Your task to perform on an android device: show emergency info Image 0: 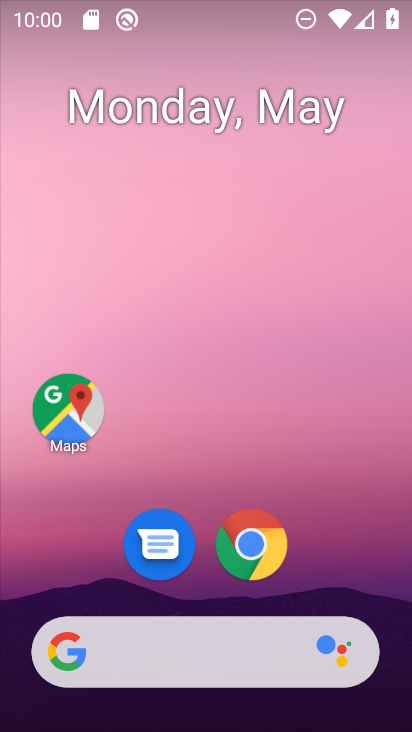
Step 0: drag from (315, 561) to (265, 264)
Your task to perform on an android device: show emergency info Image 1: 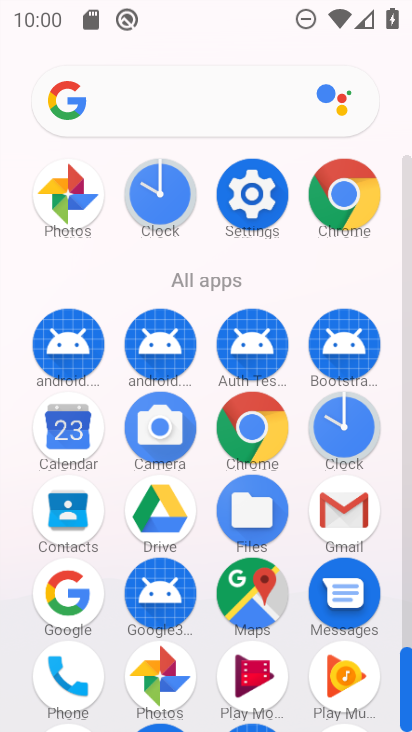
Step 1: click (258, 183)
Your task to perform on an android device: show emergency info Image 2: 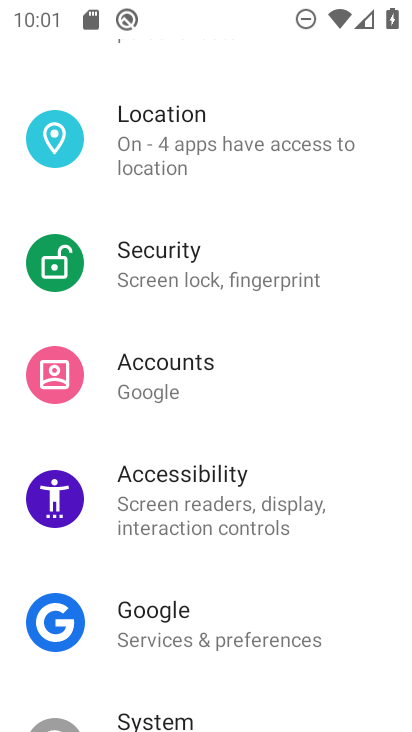
Step 2: drag from (188, 686) to (190, 425)
Your task to perform on an android device: show emergency info Image 3: 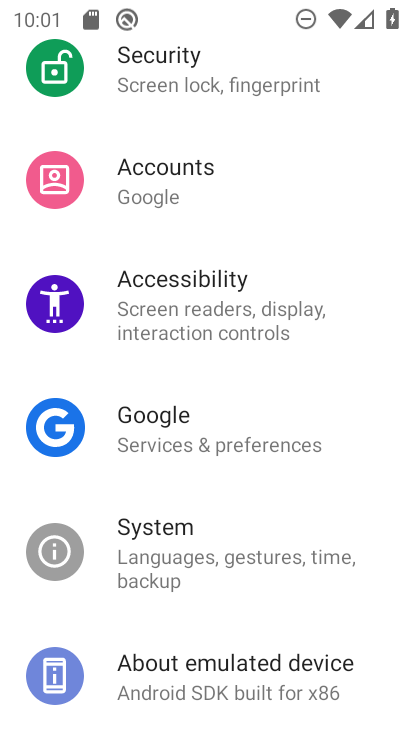
Step 3: click (161, 681)
Your task to perform on an android device: show emergency info Image 4: 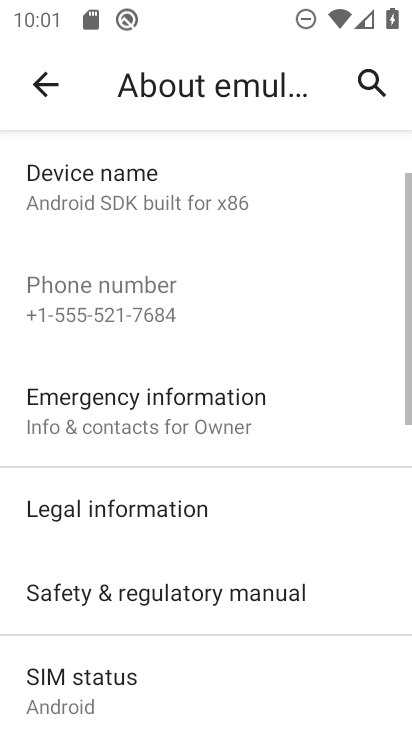
Step 4: click (180, 421)
Your task to perform on an android device: show emergency info Image 5: 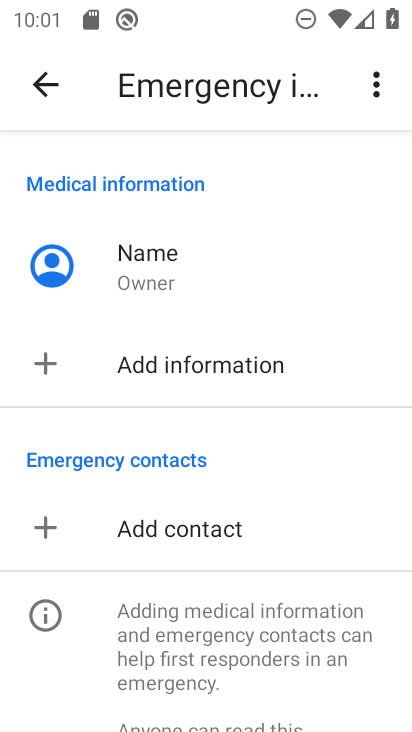
Step 5: task complete